Your task to perform on an android device: visit the assistant section in the google photos Image 0: 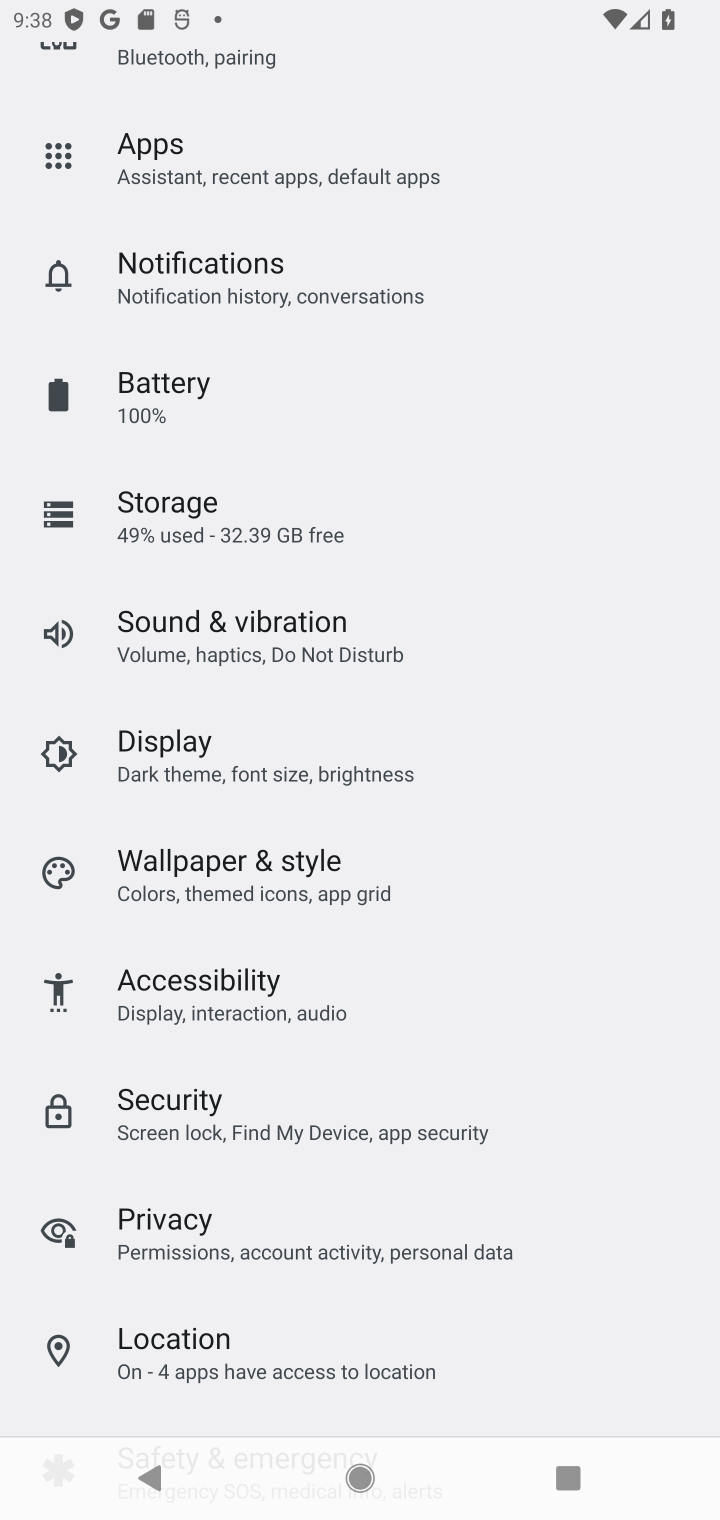
Step 0: press home button
Your task to perform on an android device: visit the assistant section in the google photos Image 1: 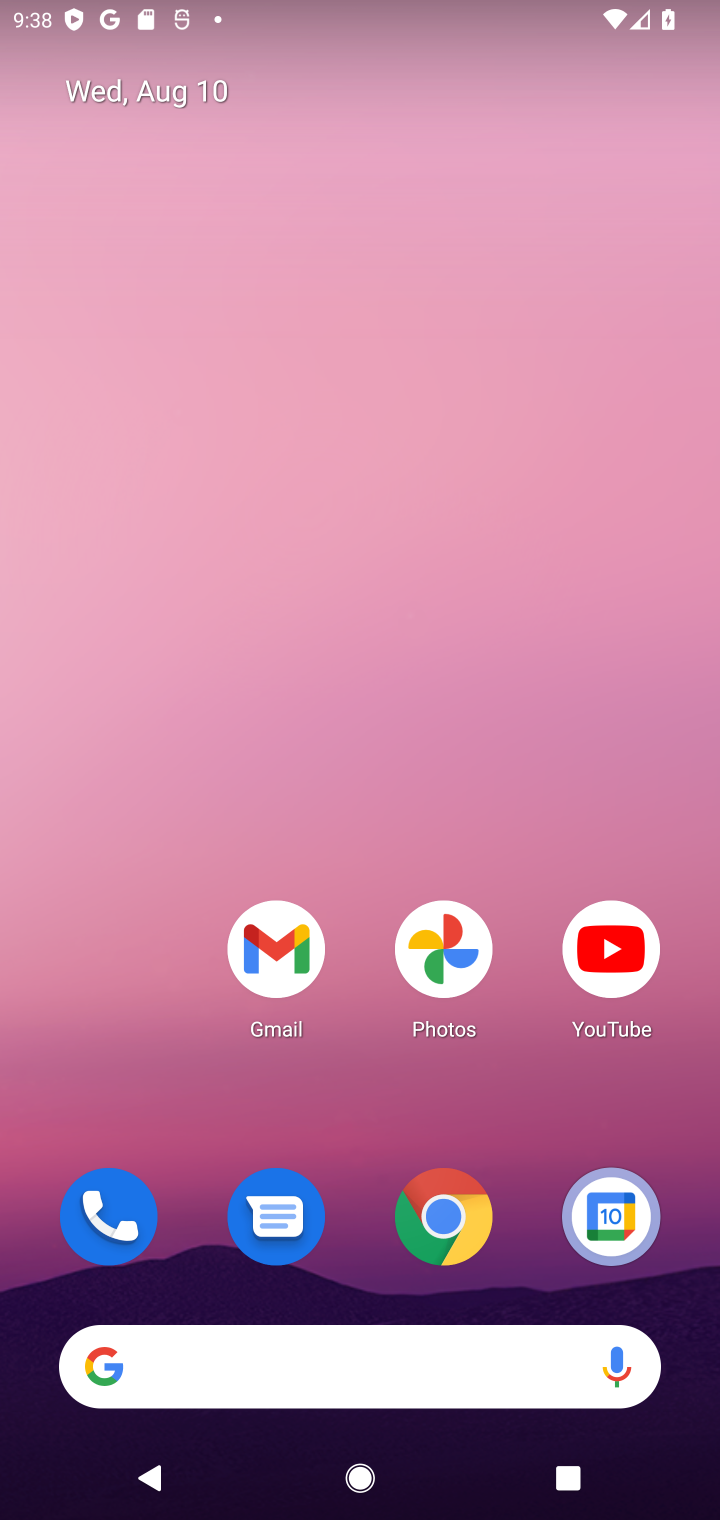
Step 1: drag from (614, 1496) to (485, 425)
Your task to perform on an android device: visit the assistant section in the google photos Image 2: 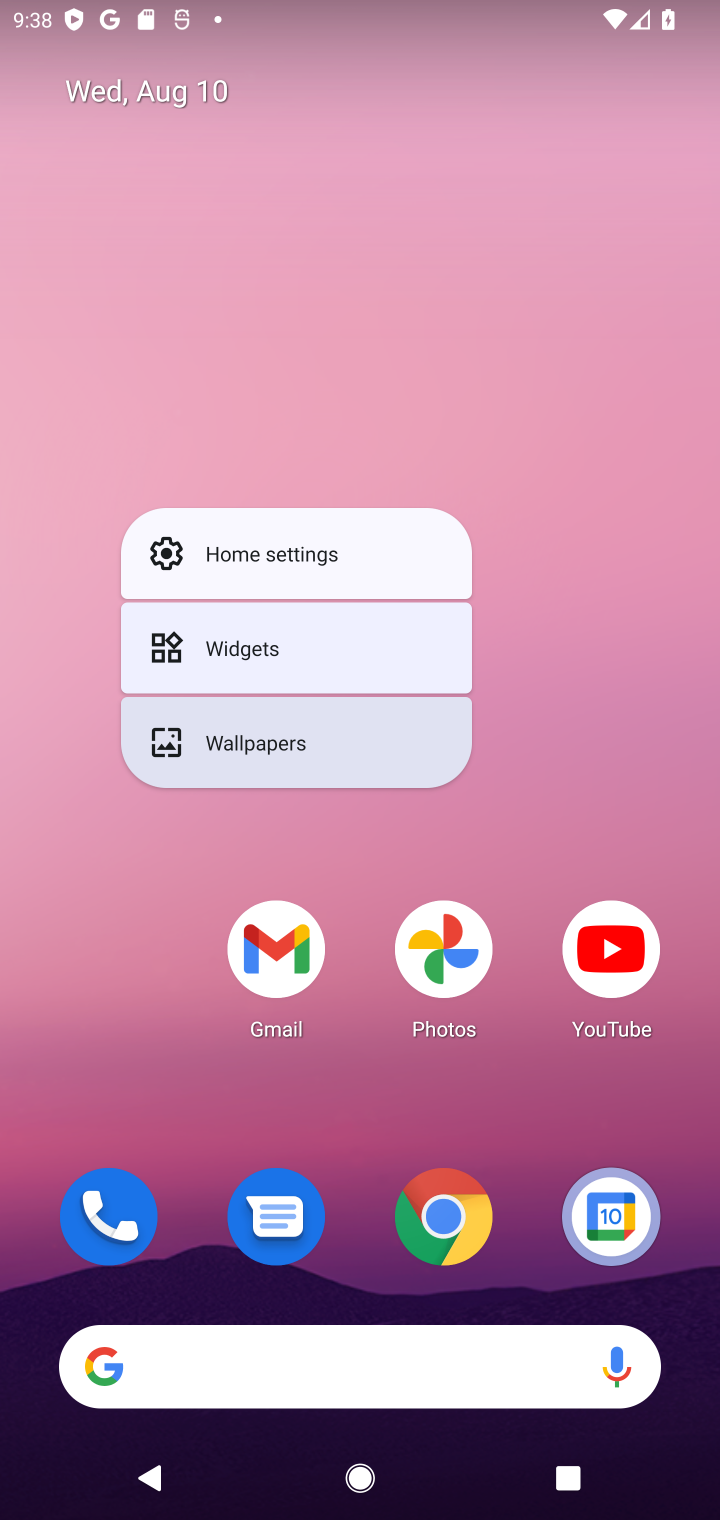
Step 2: drag from (100, 1084) to (609, 233)
Your task to perform on an android device: visit the assistant section in the google photos Image 3: 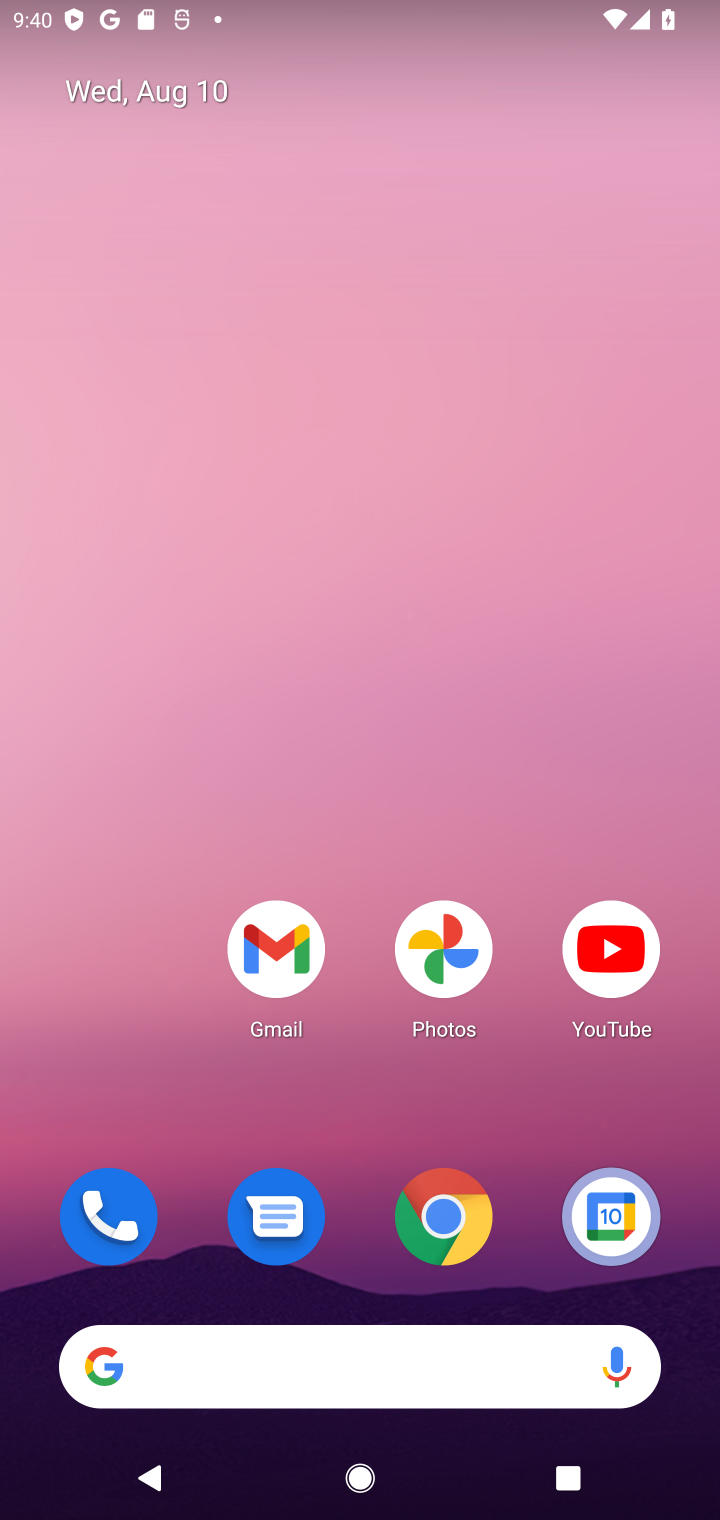
Step 3: click (433, 929)
Your task to perform on an android device: visit the assistant section in the google photos Image 4: 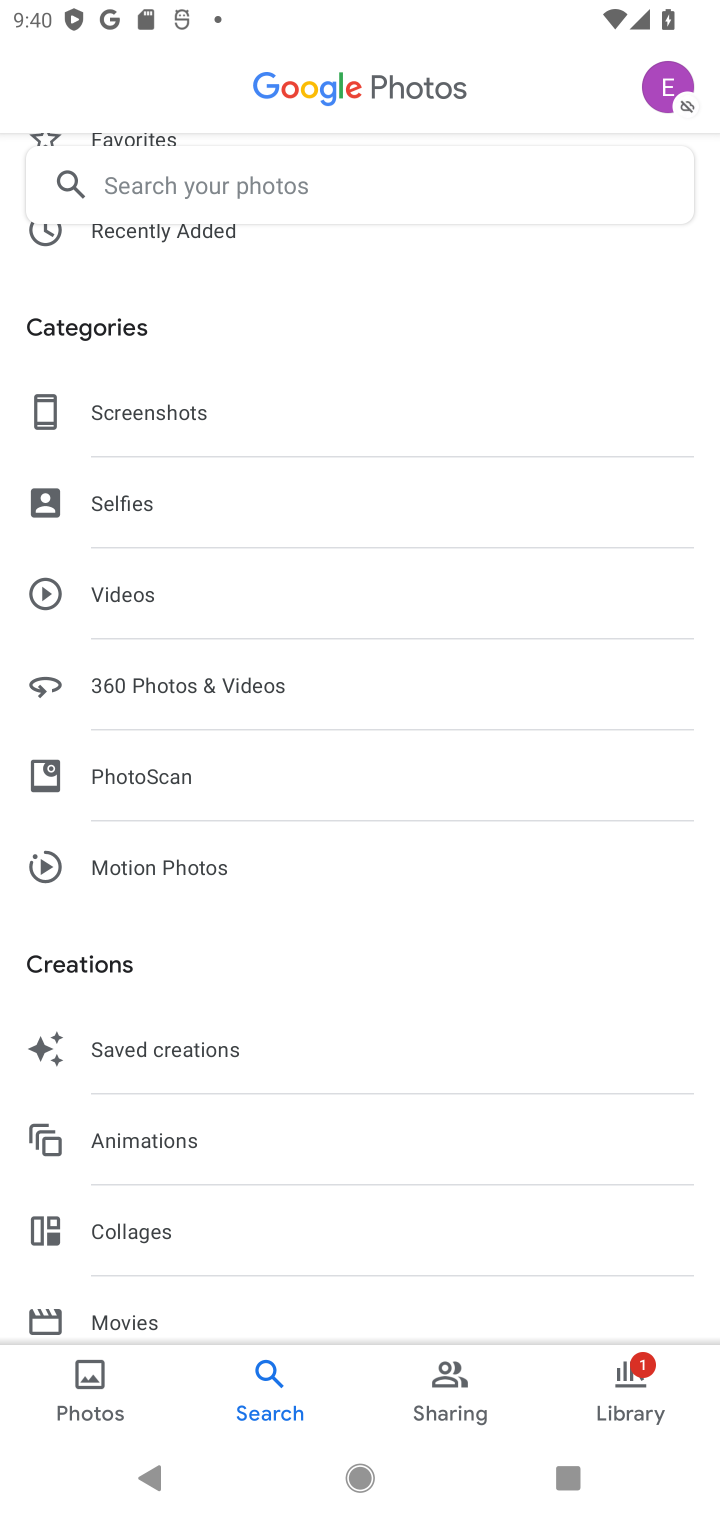
Step 4: task complete